Your task to perform on an android device: move a message to another label in the gmail app Image 0: 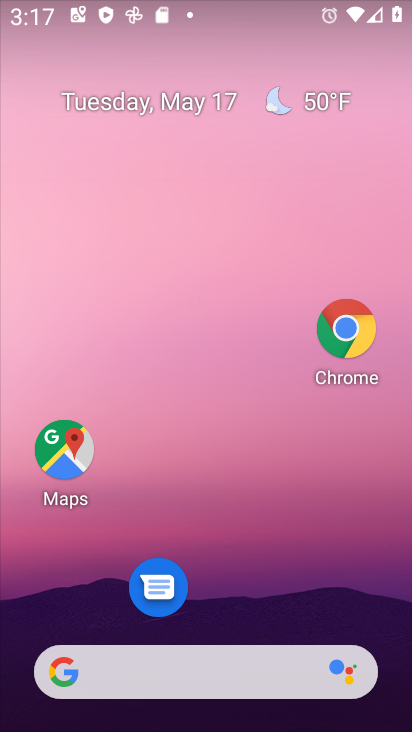
Step 0: drag from (234, 594) to (292, 67)
Your task to perform on an android device: move a message to another label in the gmail app Image 1: 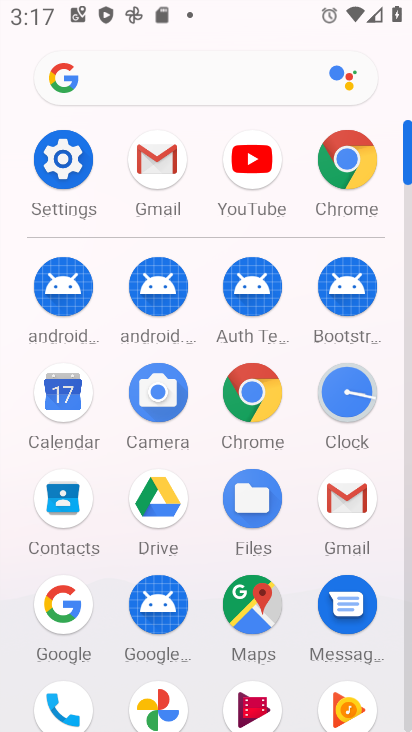
Step 1: click (145, 185)
Your task to perform on an android device: move a message to another label in the gmail app Image 2: 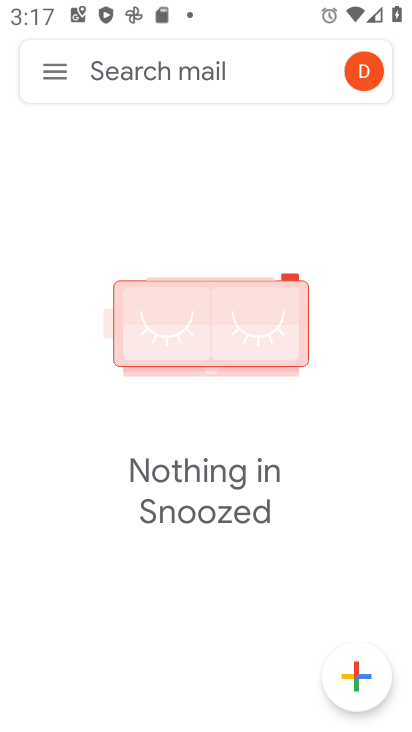
Step 2: click (68, 80)
Your task to perform on an android device: move a message to another label in the gmail app Image 3: 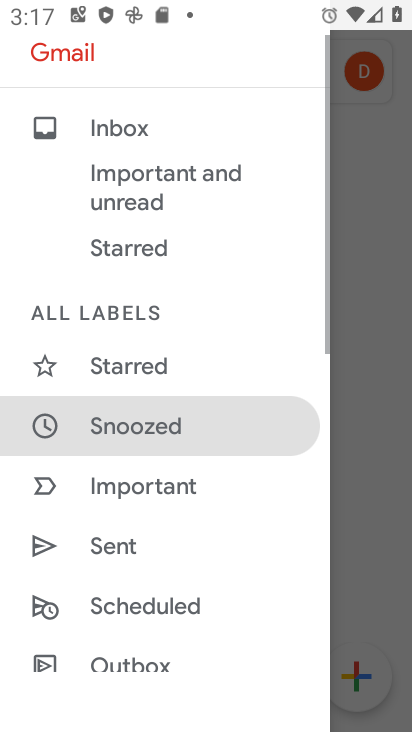
Step 3: drag from (75, 521) to (177, 240)
Your task to perform on an android device: move a message to another label in the gmail app Image 4: 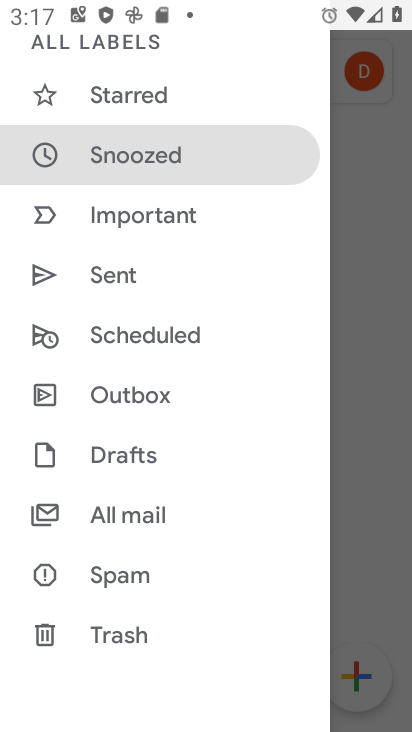
Step 4: click (163, 524)
Your task to perform on an android device: move a message to another label in the gmail app Image 5: 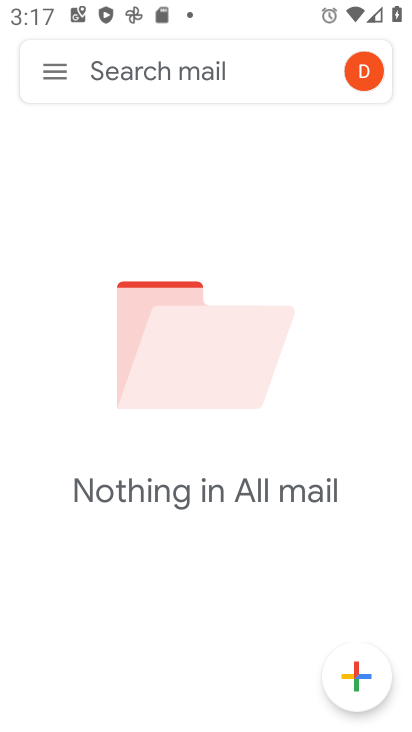
Step 5: task complete